Your task to perform on an android device: Go to eBay Image 0: 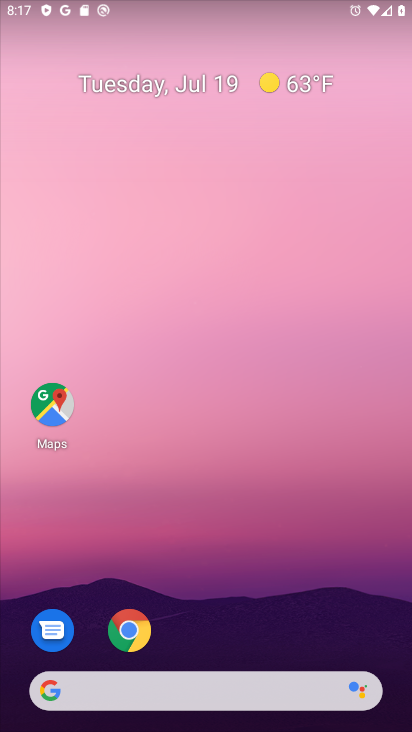
Step 0: click (116, 632)
Your task to perform on an android device: Go to eBay Image 1: 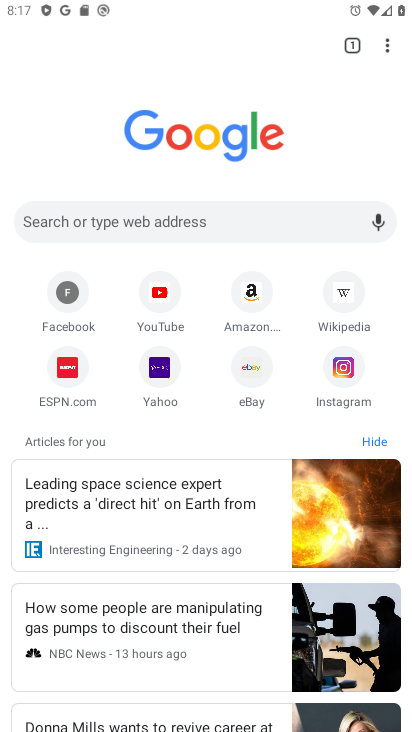
Step 1: click (258, 362)
Your task to perform on an android device: Go to eBay Image 2: 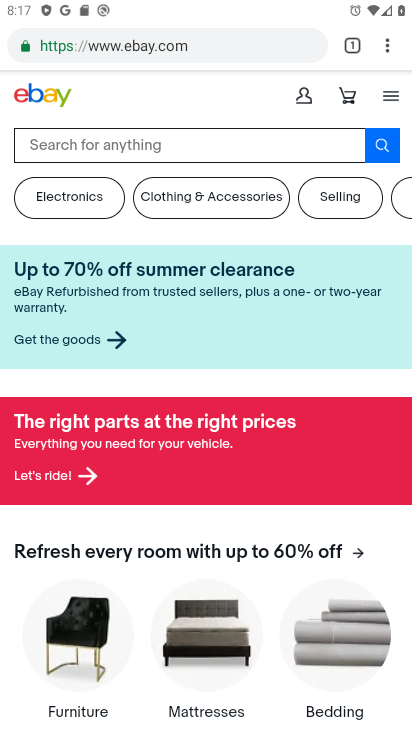
Step 2: click (258, 362)
Your task to perform on an android device: Go to eBay Image 3: 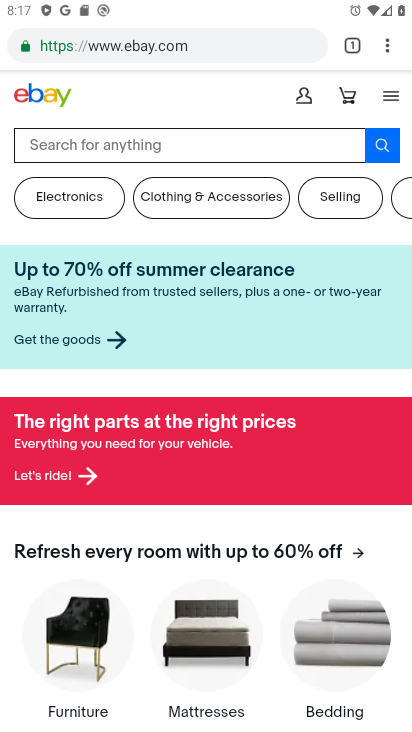
Step 3: task complete